Your task to perform on an android device: open a bookmark in the chrome app Image 0: 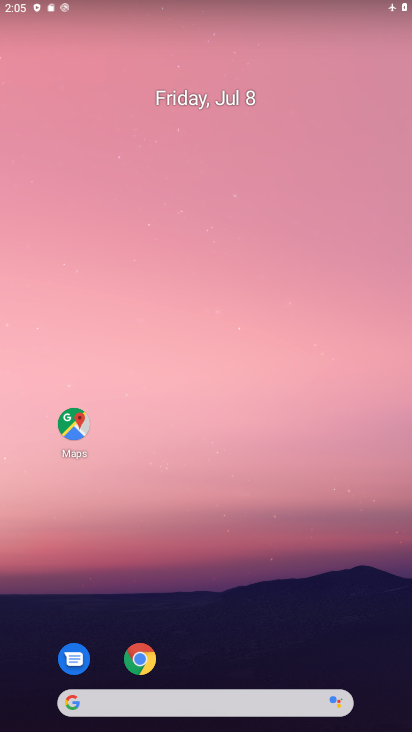
Step 0: drag from (316, 608) to (323, 187)
Your task to perform on an android device: open a bookmark in the chrome app Image 1: 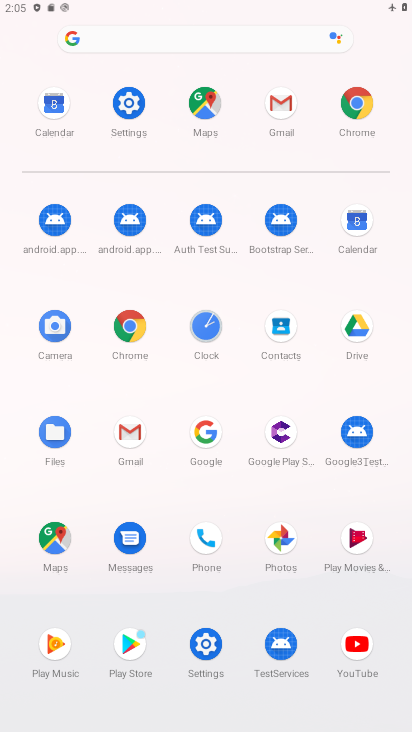
Step 1: click (145, 347)
Your task to perform on an android device: open a bookmark in the chrome app Image 2: 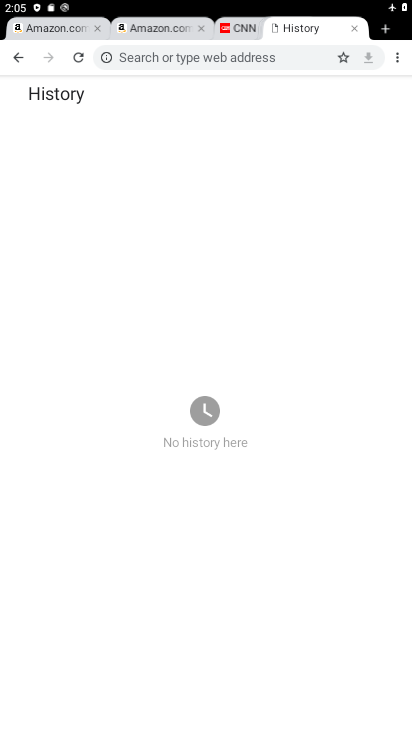
Step 2: click (404, 64)
Your task to perform on an android device: open a bookmark in the chrome app Image 3: 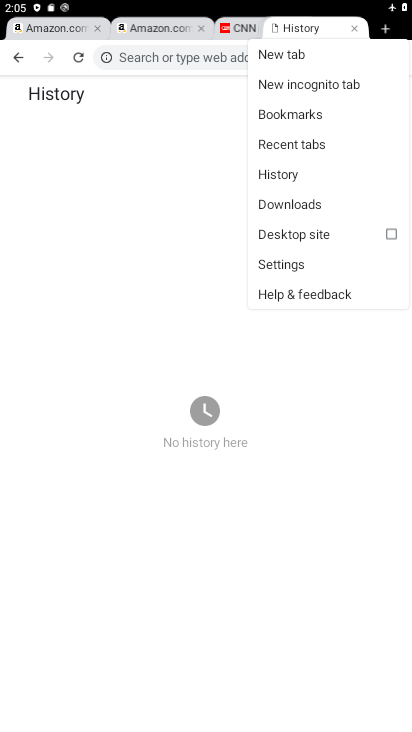
Step 3: click (315, 114)
Your task to perform on an android device: open a bookmark in the chrome app Image 4: 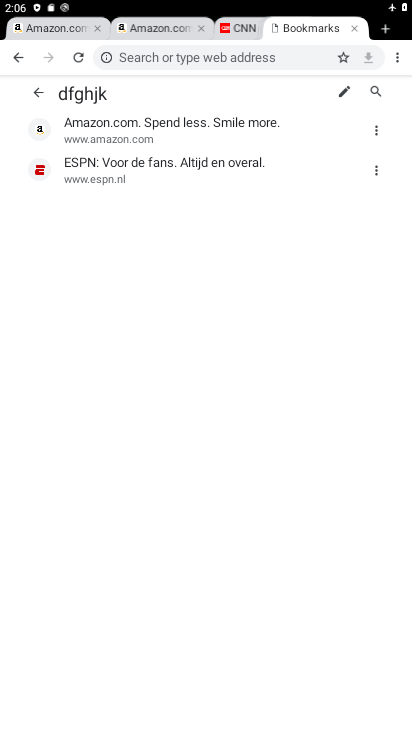
Step 4: click (211, 175)
Your task to perform on an android device: open a bookmark in the chrome app Image 5: 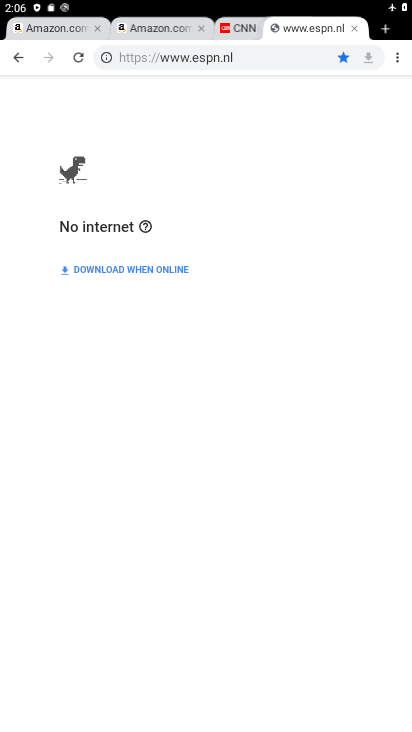
Step 5: task complete